Your task to perform on an android device: star an email in the gmail app Image 0: 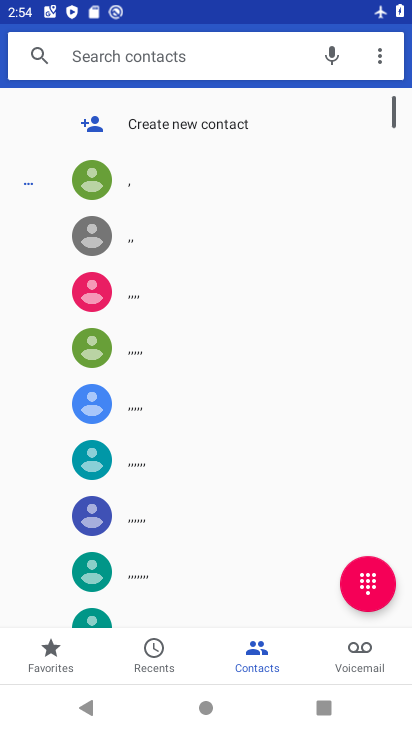
Step 0: press home button
Your task to perform on an android device: star an email in the gmail app Image 1: 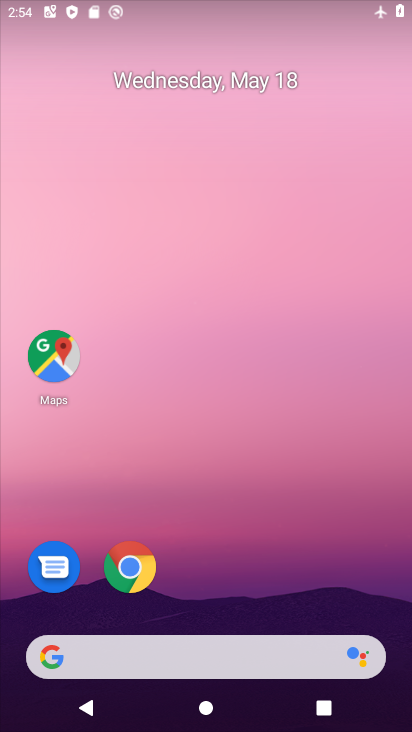
Step 1: drag from (250, 504) to (247, 176)
Your task to perform on an android device: star an email in the gmail app Image 2: 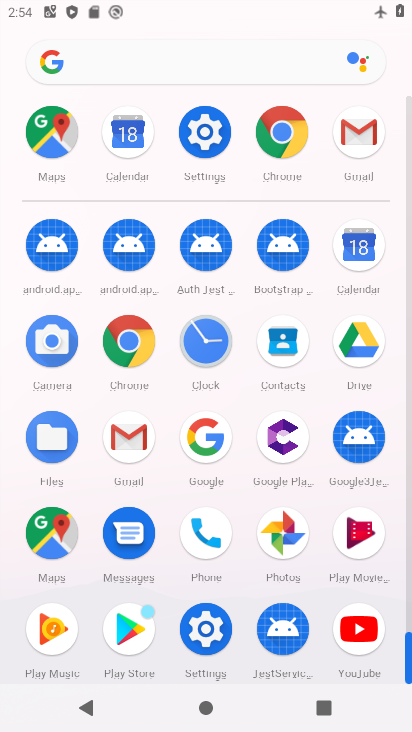
Step 2: click (355, 130)
Your task to perform on an android device: star an email in the gmail app Image 3: 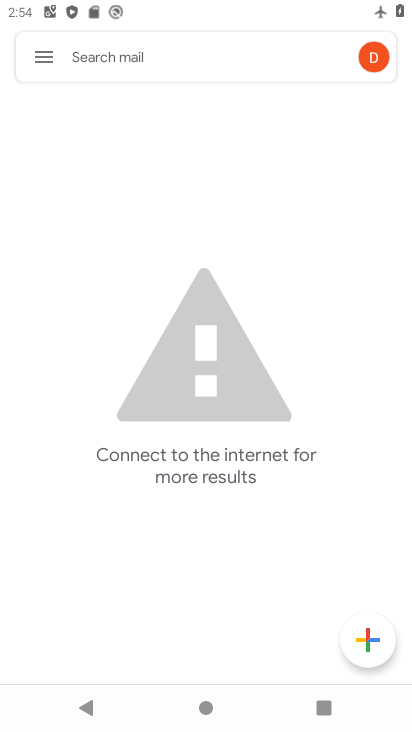
Step 3: click (42, 55)
Your task to perform on an android device: star an email in the gmail app Image 4: 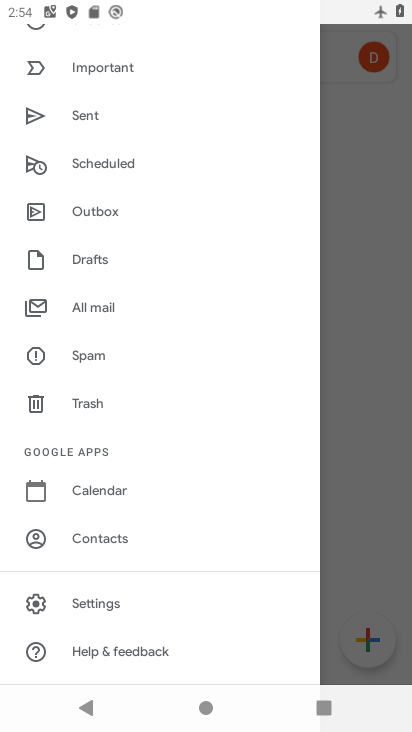
Step 4: drag from (170, 220) to (181, 623)
Your task to perform on an android device: star an email in the gmail app Image 5: 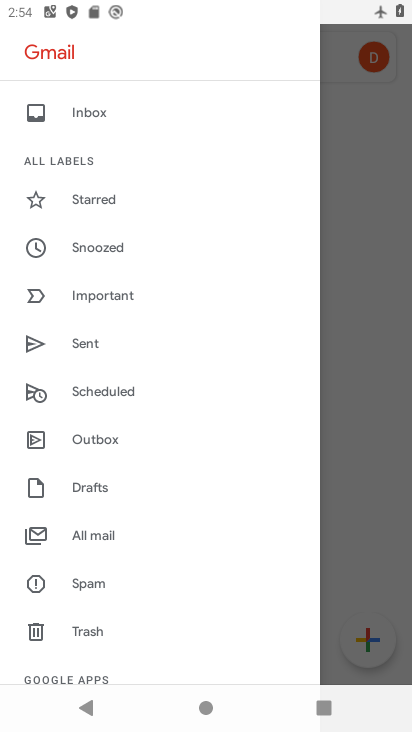
Step 5: click (122, 190)
Your task to perform on an android device: star an email in the gmail app Image 6: 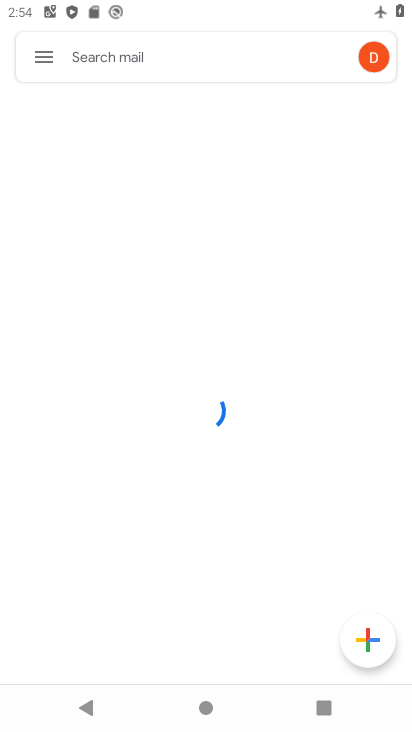
Step 6: task complete